Your task to perform on an android device: Go to Yahoo.com Image 0: 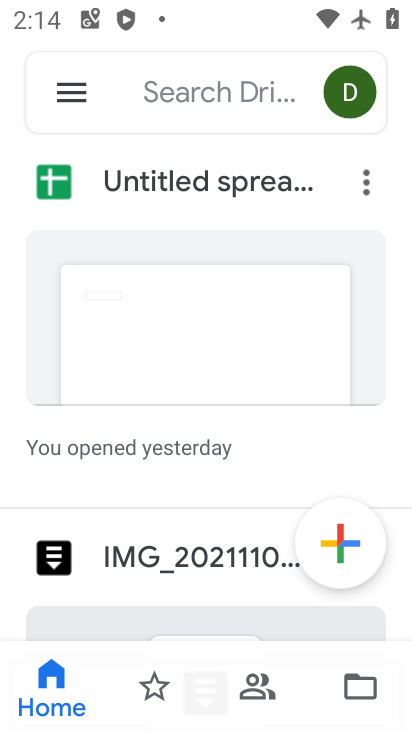
Step 0: press home button
Your task to perform on an android device: Go to Yahoo.com Image 1: 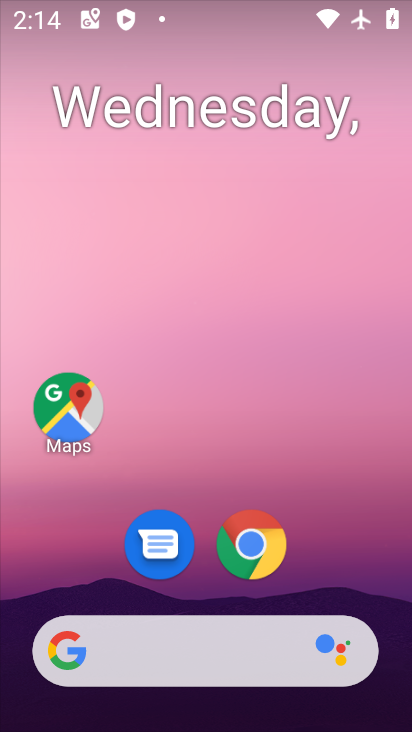
Step 1: click (245, 542)
Your task to perform on an android device: Go to Yahoo.com Image 2: 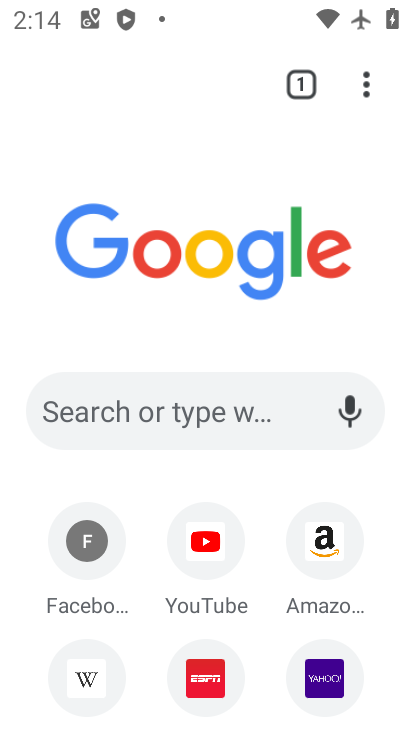
Step 2: click (184, 397)
Your task to perform on an android device: Go to Yahoo.com Image 3: 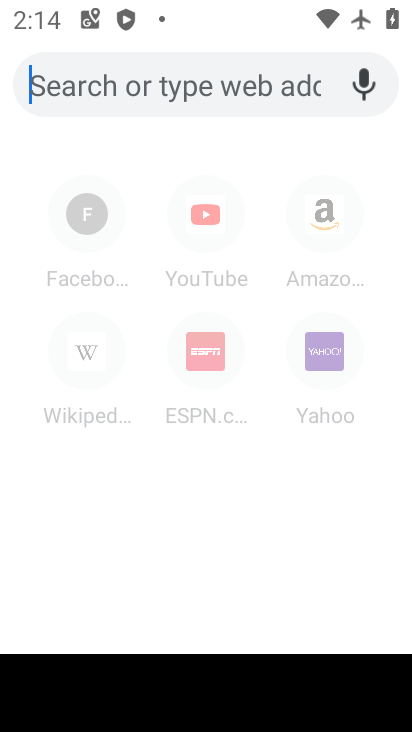
Step 3: click (322, 367)
Your task to perform on an android device: Go to Yahoo.com Image 4: 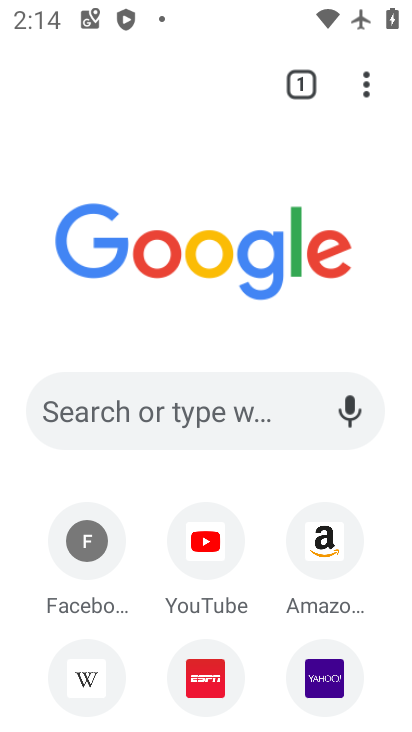
Step 4: click (295, 669)
Your task to perform on an android device: Go to Yahoo.com Image 5: 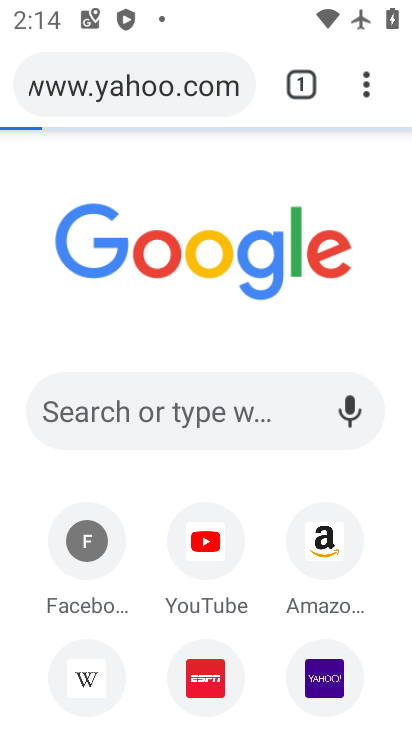
Step 5: task complete